Your task to perform on an android device: Go to Google Image 0: 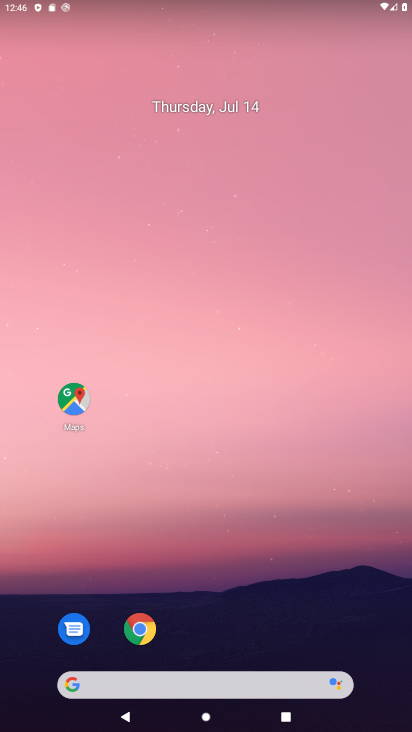
Step 0: drag from (239, 628) to (238, 123)
Your task to perform on an android device: Go to Google Image 1: 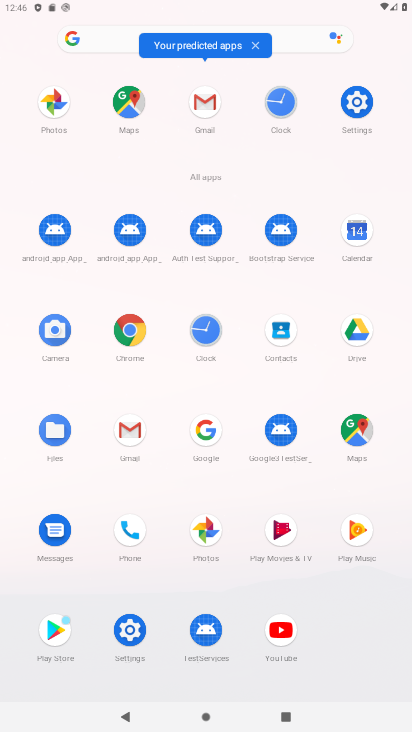
Step 1: click (209, 426)
Your task to perform on an android device: Go to Google Image 2: 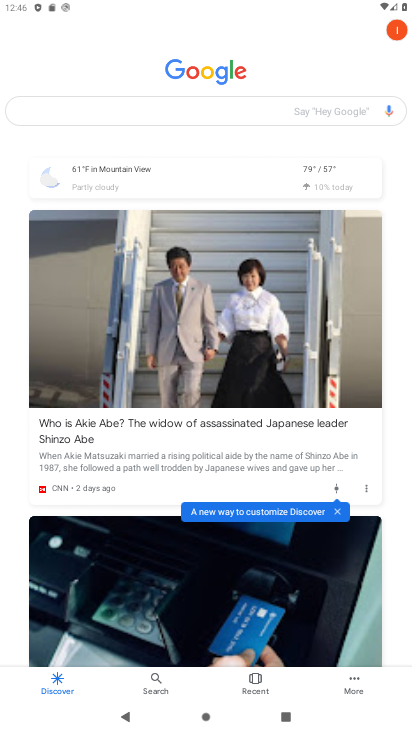
Step 2: task complete